Your task to perform on an android device: turn pop-ups on in chrome Image 0: 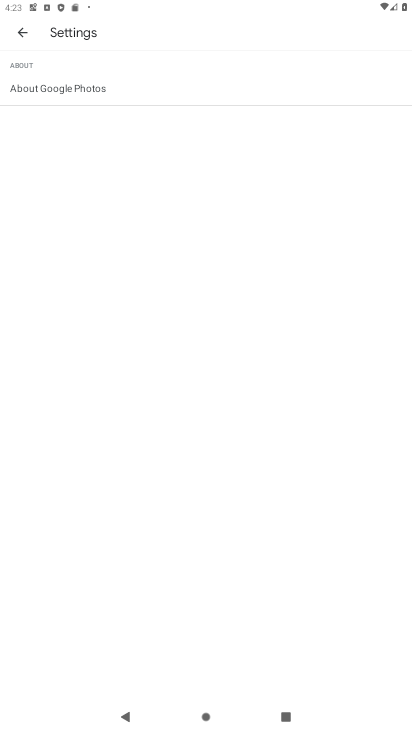
Step 0: press home button
Your task to perform on an android device: turn pop-ups on in chrome Image 1: 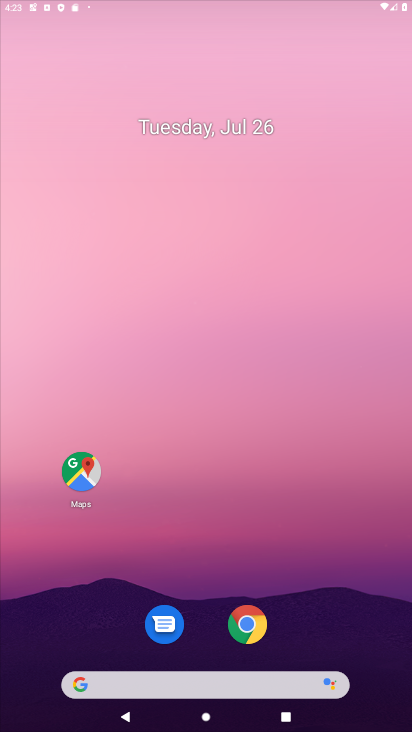
Step 1: drag from (284, 677) to (342, 4)
Your task to perform on an android device: turn pop-ups on in chrome Image 2: 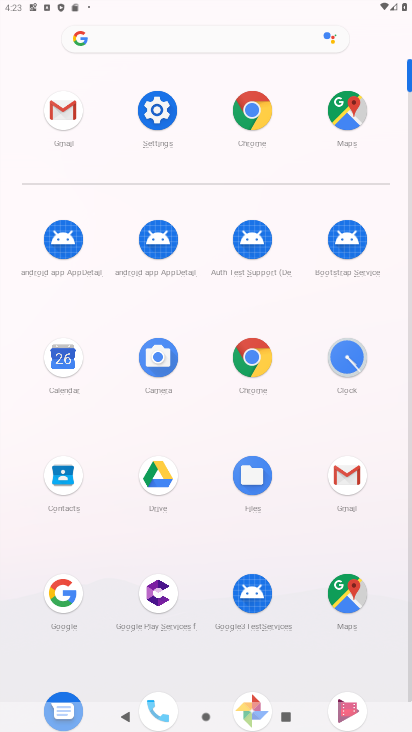
Step 2: click (254, 363)
Your task to perform on an android device: turn pop-ups on in chrome Image 3: 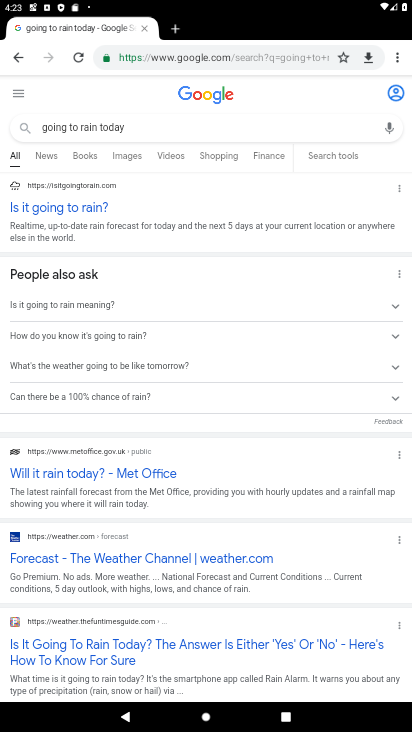
Step 3: click (396, 63)
Your task to perform on an android device: turn pop-ups on in chrome Image 4: 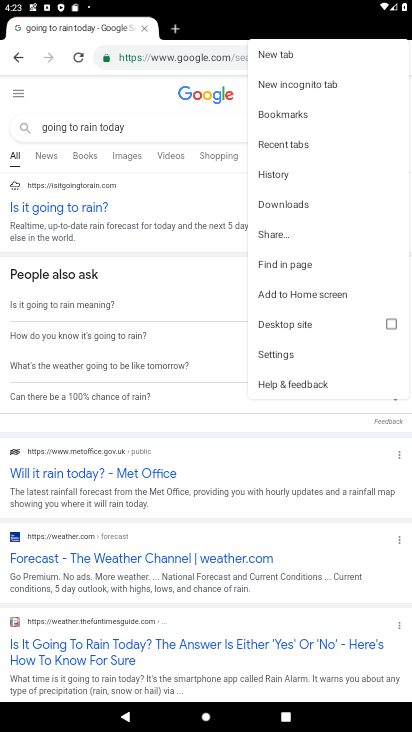
Step 4: click (290, 356)
Your task to perform on an android device: turn pop-ups on in chrome Image 5: 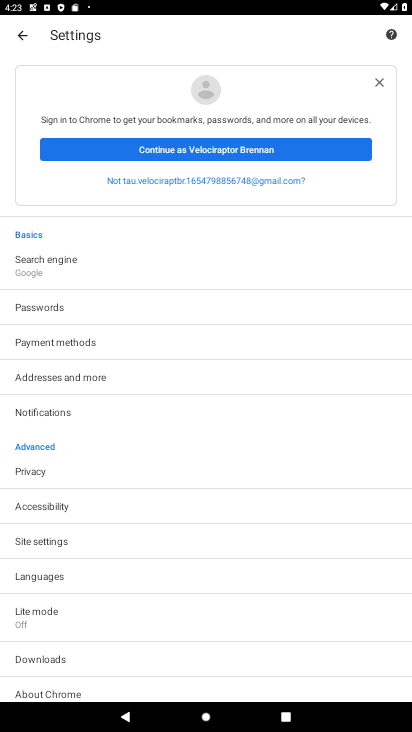
Step 5: click (69, 536)
Your task to perform on an android device: turn pop-ups on in chrome Image 6: 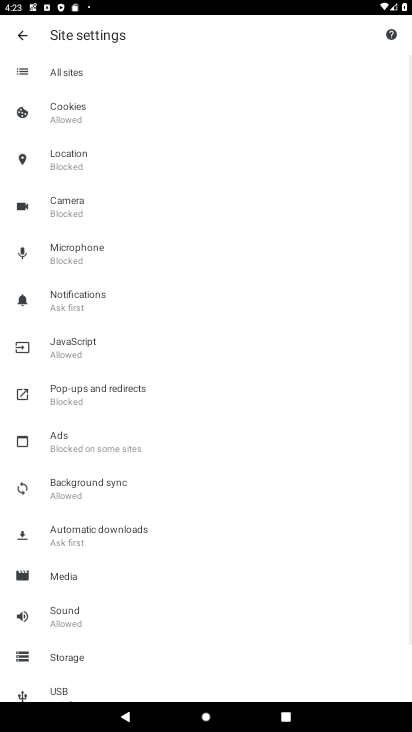
Step 6: click (90, 395)
Your task to perform on an android device: turn pop-ups on in chrome Image 7: 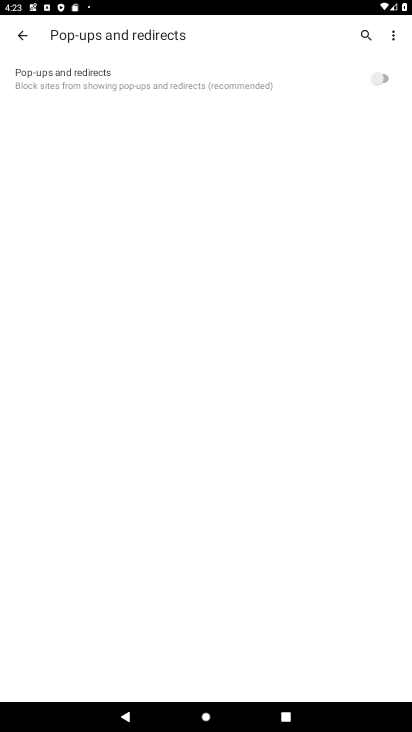
Step 7: click (381, 73)
Your task to perform on an android device: turn pop-ups on in chrome Image 8: 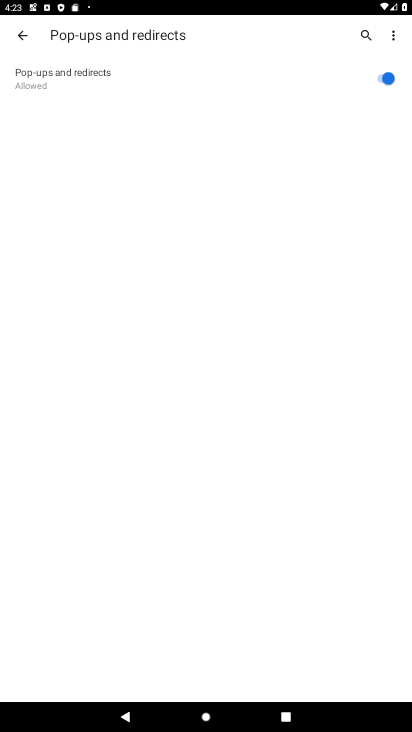
Step 8: task complete